Your task to perform on an android device: move an email to a new category in the gmail app Image 0: 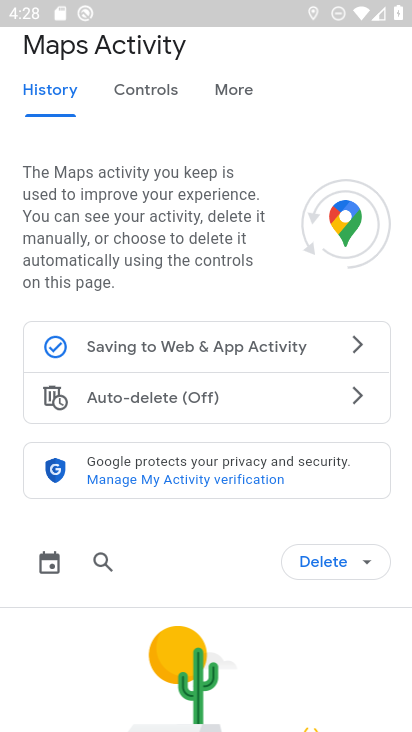
Step 0: press home button
Your task to perform on an android device: move an email to a new category in the gmail app Image 1: 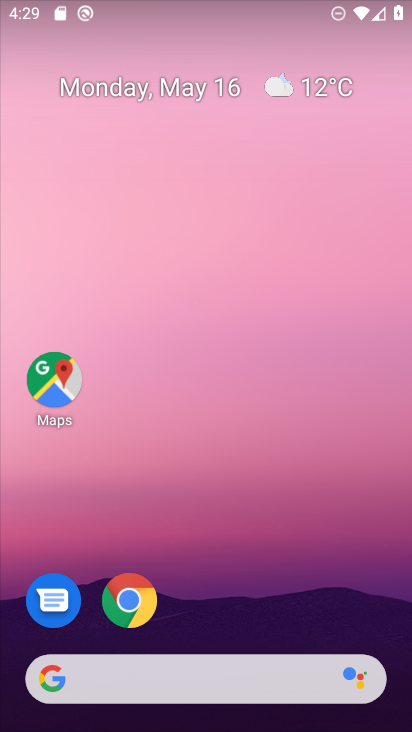
Step 1: drag from (267, 567) to (241, 77)
Your task to perform on an android device: move an email to a new category in the gmail app Image 2: 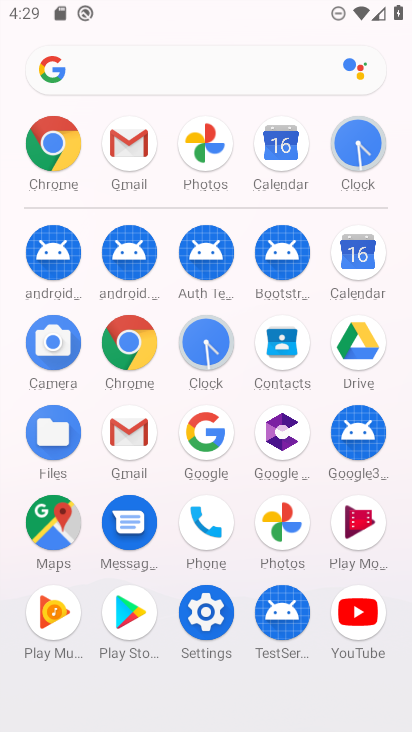
Step 2: click (121, 145)
Your task to perform on an android device: move an email to a new category in the gmail app Image 3: 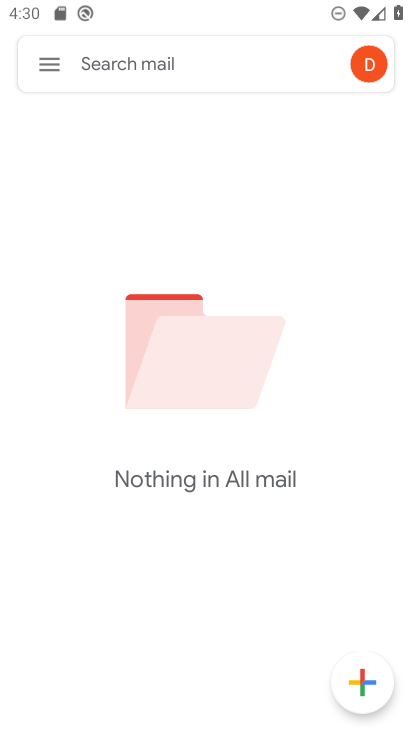
Step 3: task complete